Your task to perform on an android device: turn on sleep mode Image 0: 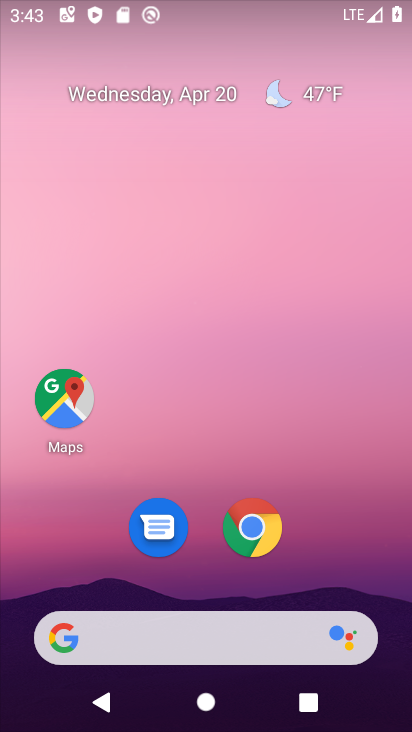
Step 0: drag from (322, 467) to (308, 193)
Your task to perform on an android device: turn on sleep mode Image 1: 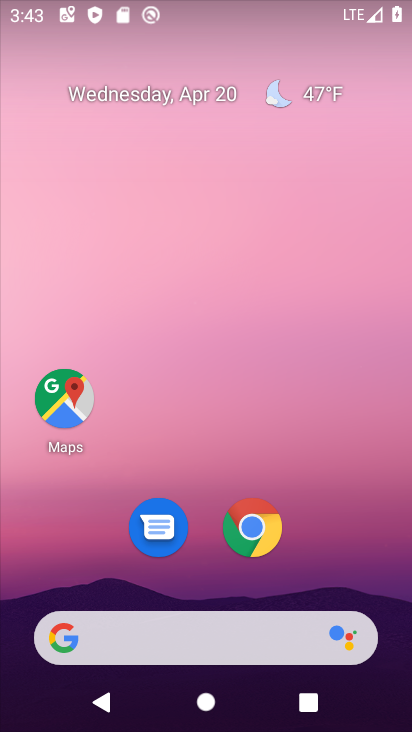
Step 1: drag from (299, 551) to (325, 106)
Your task to perform on an android device: turn on sleep mode Image 2: 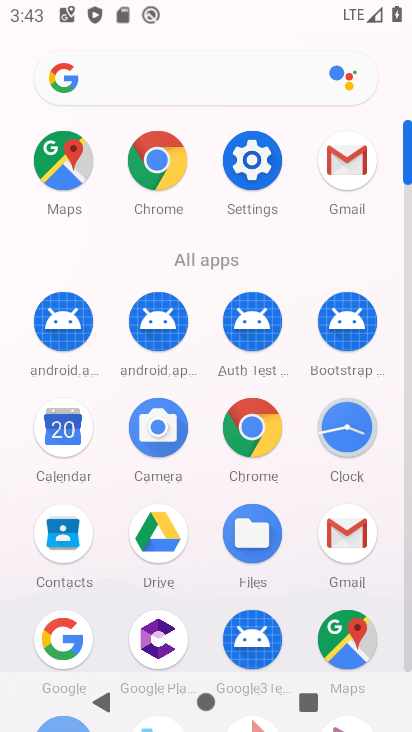
Step 2: click (258, 185)
Your task to perform on an android device: turn on sleep mode Image 3: 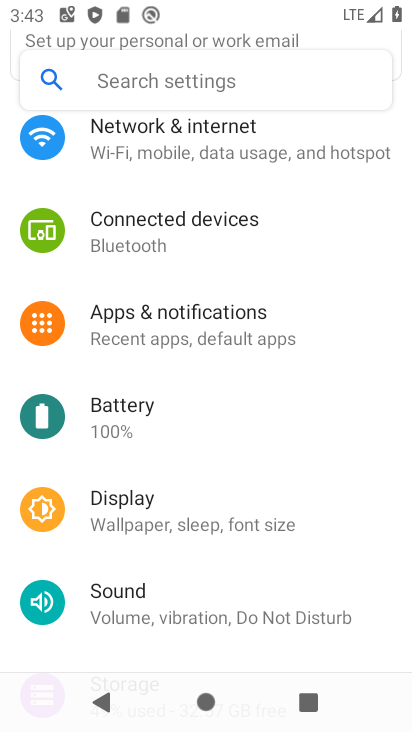
Step 3: click (167, 528)
Your task to perform on an android device: turn on sleep mode Image 4: 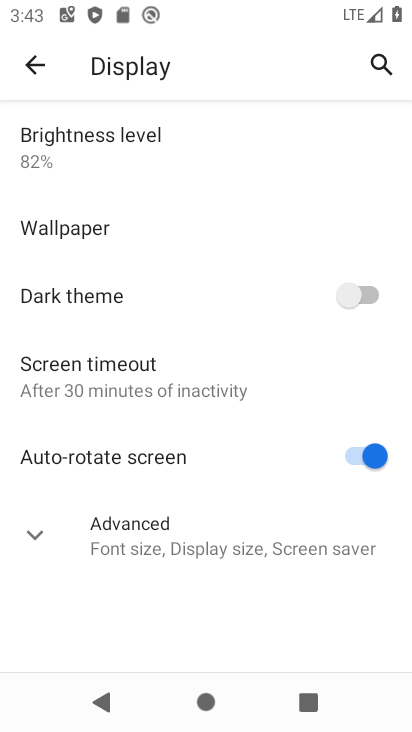
Step 4: click (32, 539)
Your task to perform on an android device: turn on sleep mode Image 5: 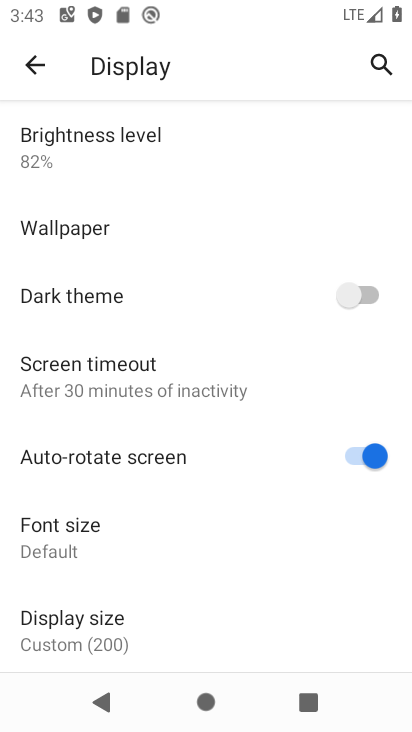
Step 5: task complete